Your task to perform on an android device: turn on sleep mode Image 0: 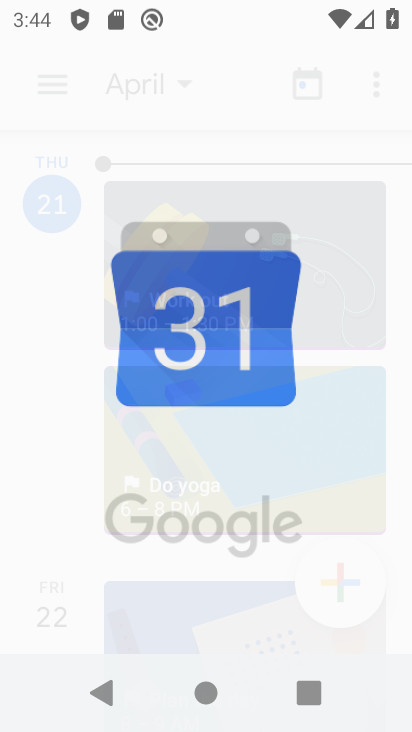
Step 0: drag from (210, 719) to (213, 186)
Your task to perform on an android device: turn on sleep mode Image 1: 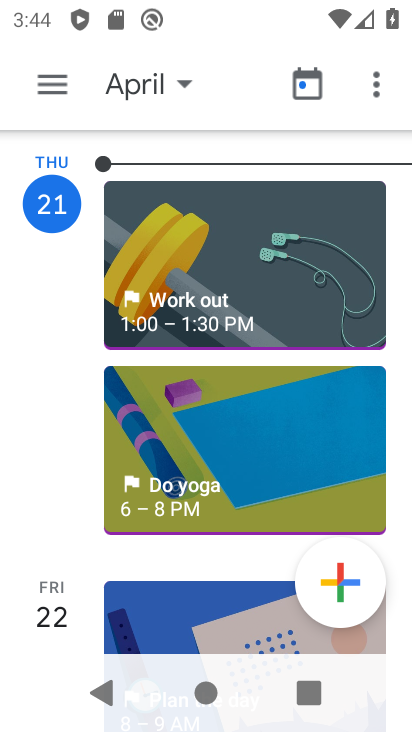
Step 1: press home button
Your task to perform on an android device: turn on sleep mode Image 2: 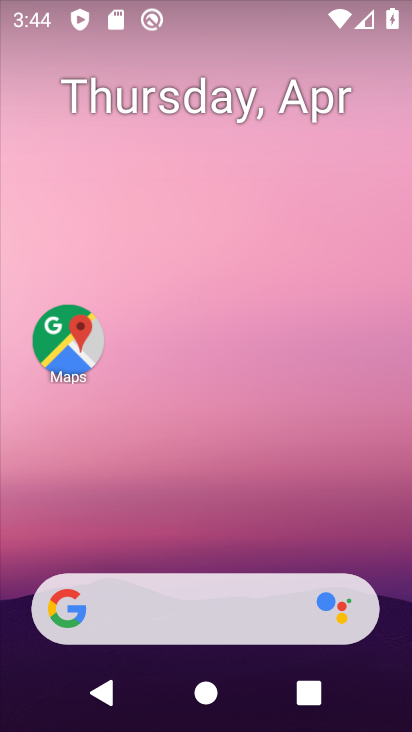
Step 2: drag from (221, 723) to (223, 148)
Your task to perform on an android device: turn on sleep mode Image 3: 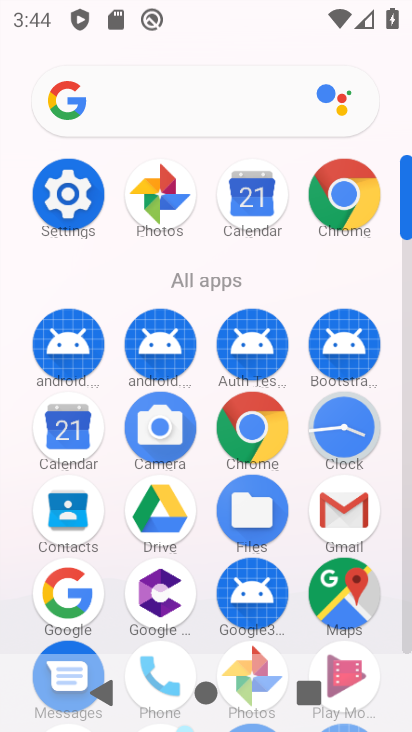
Step 3: click (70, 187)
Your task to perform on an android device: turn on sleep mode Image 4: 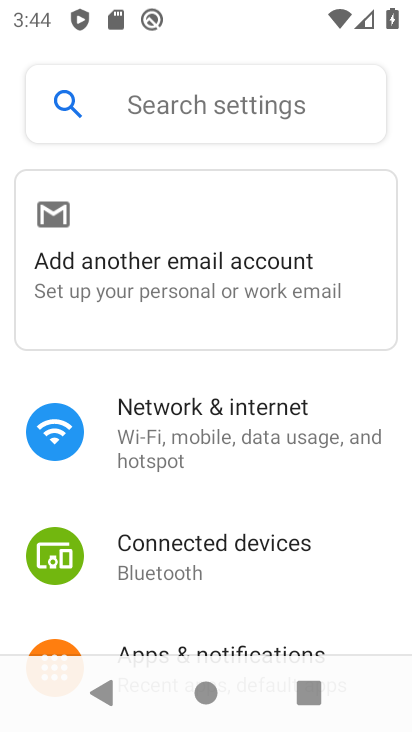
Step 4: drag from (208, 612) to (196, 433)
Your task to perform on an android device: turn on sleep mode Image 5: 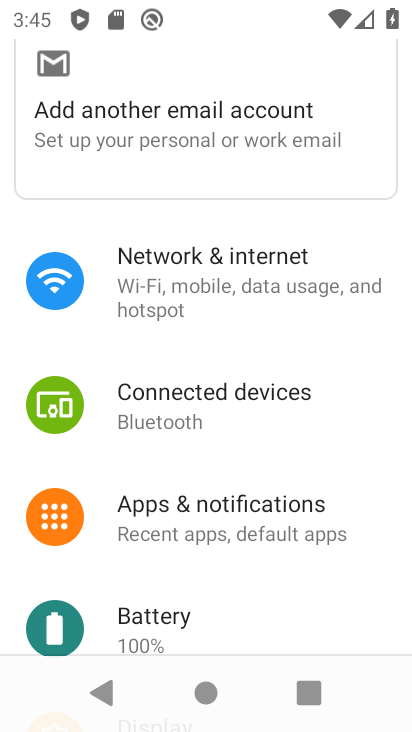
Step 5: drag from (208, 595) to (223, 294)
Your task to perform on an android device: turn on sleep mode Image 6: 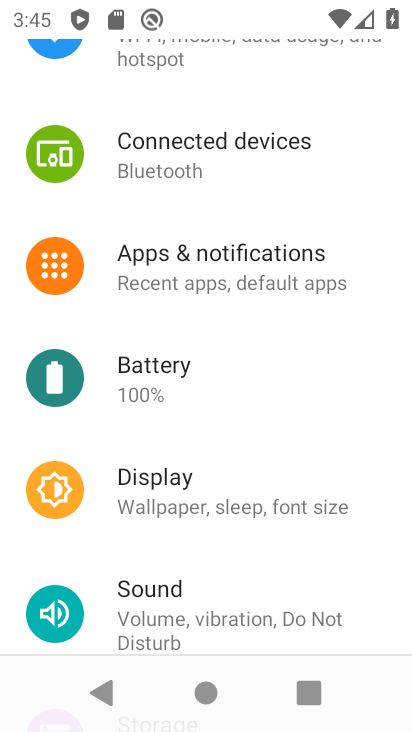
Step 6: click (210, 513)
Your task to perform on an android device: turn on sleep mode Image 7: 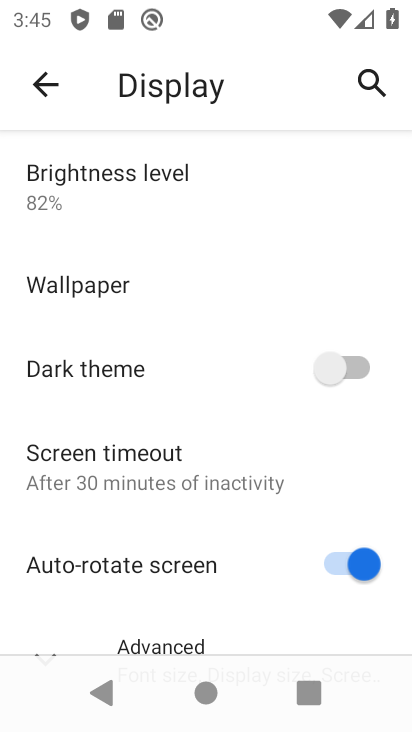
Step 7: task complete